Your task to perform on an android device: Open accessibility settings Image 0: 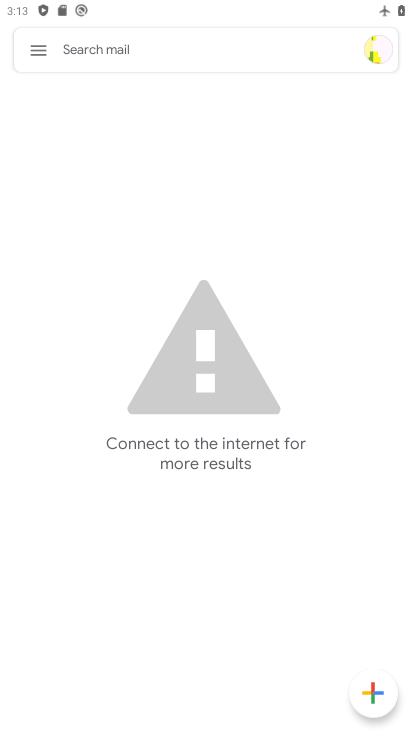
Step 0: press back button
Your task to perform on an android device: Open accessibility settings Image 1: 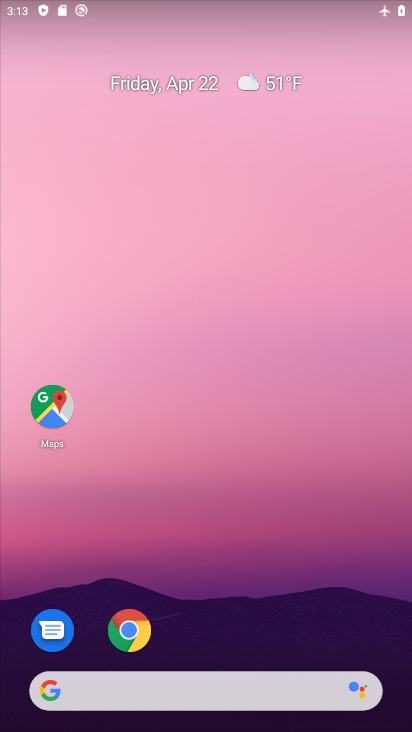
Step 1: drag from (317, 523) to (284, 12)
Your task to perform on an android device: Open accessibility settings Image 2: 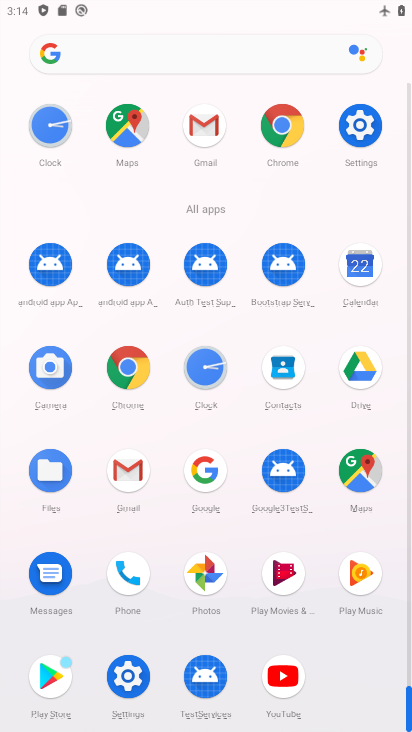
Step 2: drag from (4, 594) to (4, 323)
Your task to perform on an android device: Open accessibility settings Image 3: 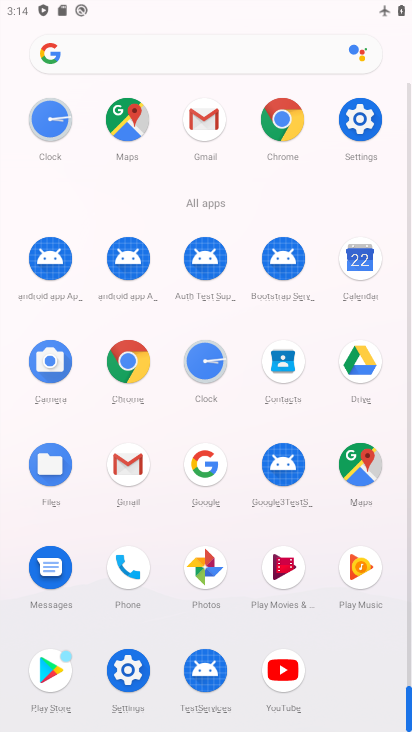
Step 3: click (134, 669)
Your task to perform on an android device: Open accessibility settings Image 4: 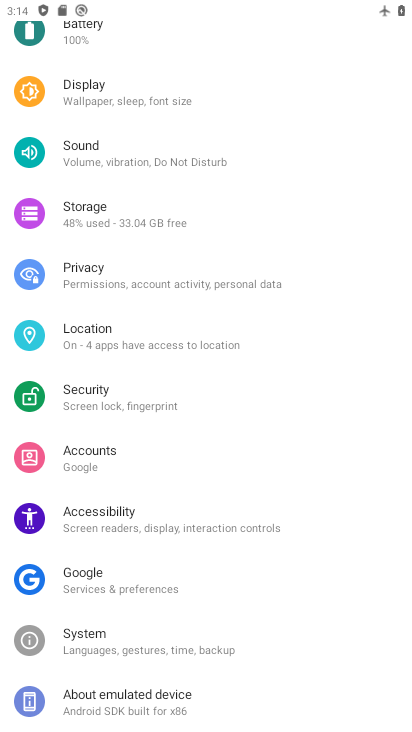
Step 4: click (152, 512)
Your task to perform on an android device: Open accessibility settings Image 5: 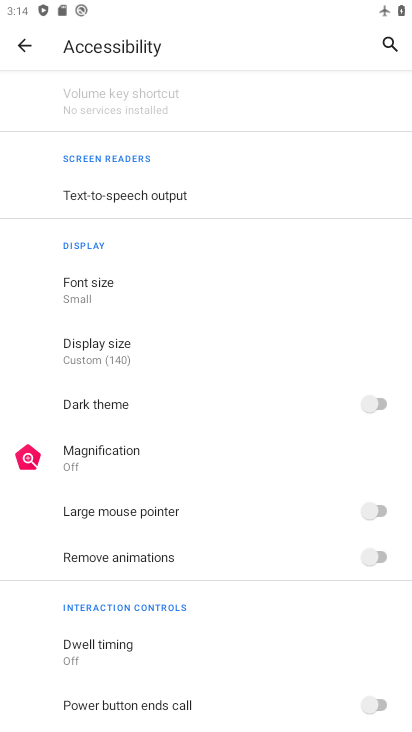
Step 5: task complete